Your task to perform on an android device: Open calendar and show me the first week of next month Image 0: 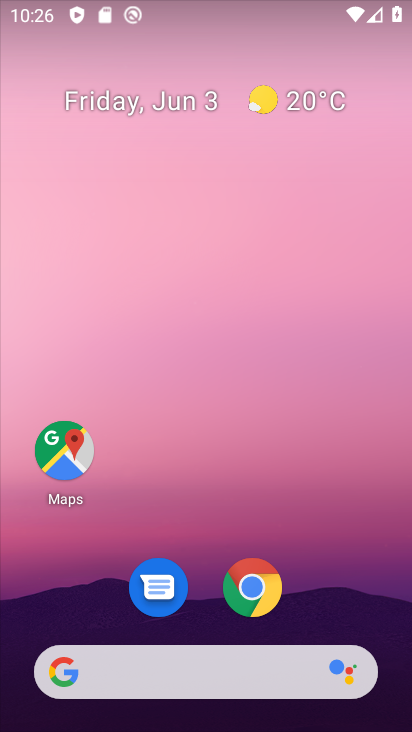
Step 0: press home button
Your task to perform on an android device: Open calendar and show me the first week of next month Image 1: 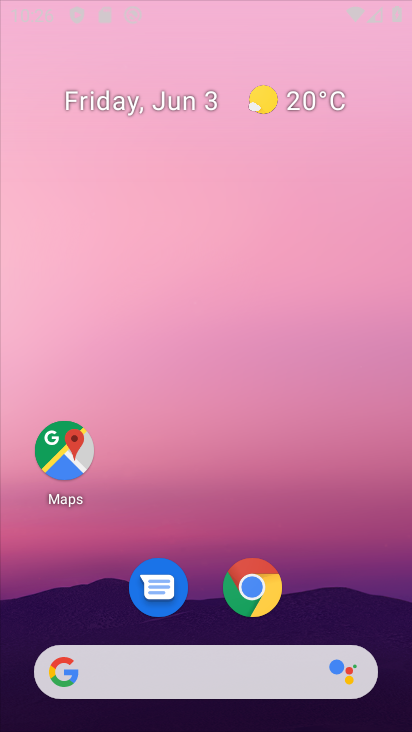
Step 1: drag from (318, 584) to (263, 80)
Your task to perform on an android device: Open calendar and show me the first week of next month Image 2: 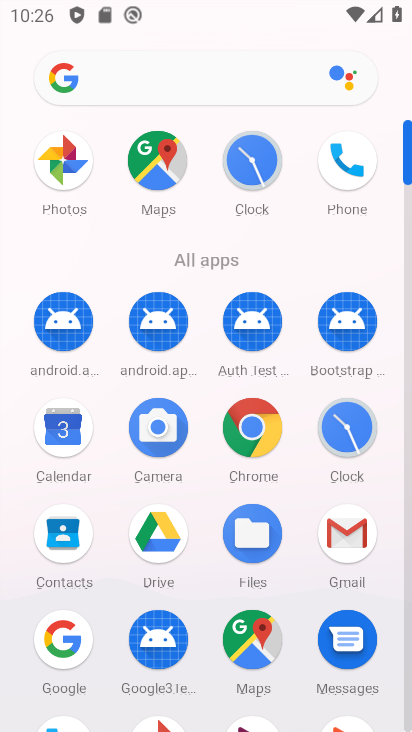
Step 2: click (59, 434)
Your task to perform on an android device: Open calendar and show me the first week of next month Image 3: 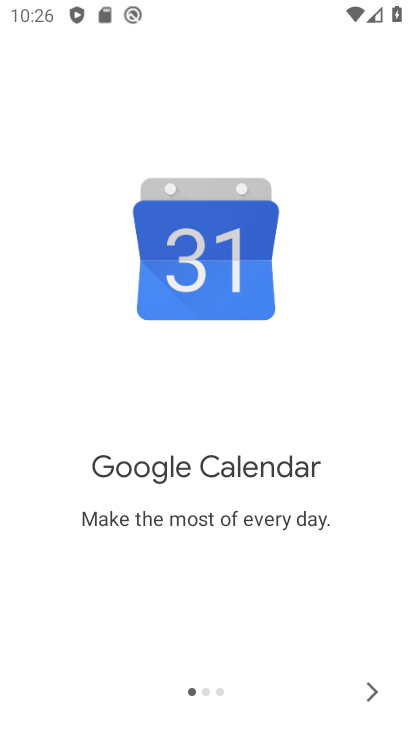
Step 3: click (372, 687)
Your task to perform on an android device: Open calendar and show me the first week of next month Image 4: 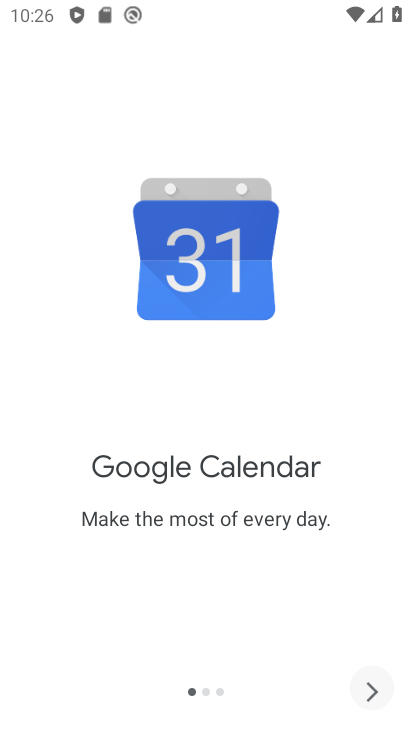
Step 4: click (372, 687)
Your task to perform on an android device: Open calendar and show me the first week of next month Image 5: 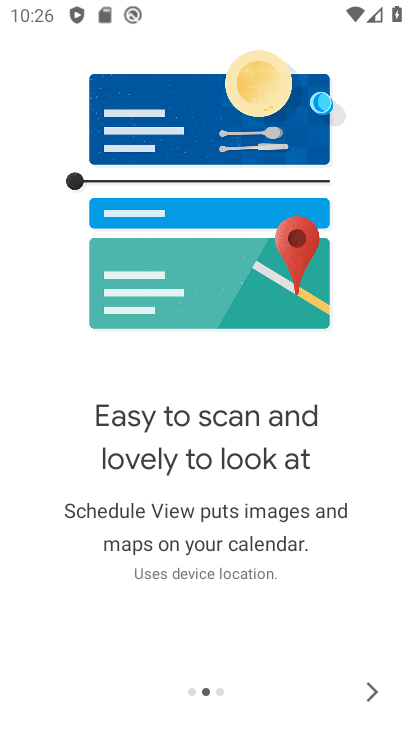
Step 5: click (371, 688)
Your task to perform on an android device: Open calendar and show me the first week of next month Image 6: 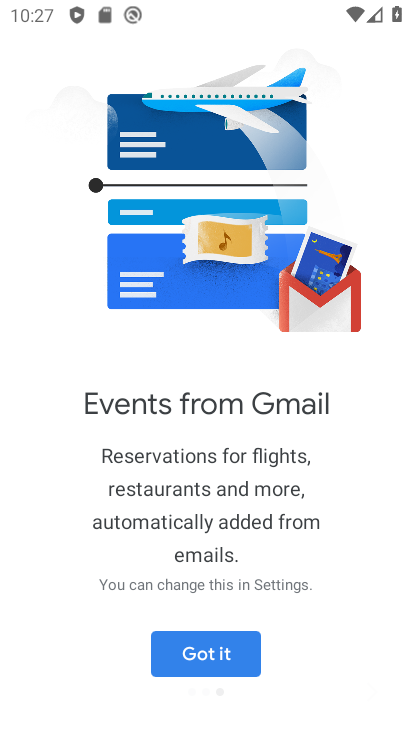
Step 6: click (212, 665)
Your task to perform on an android device: Open calendar and show me the first week of next month Image 7: 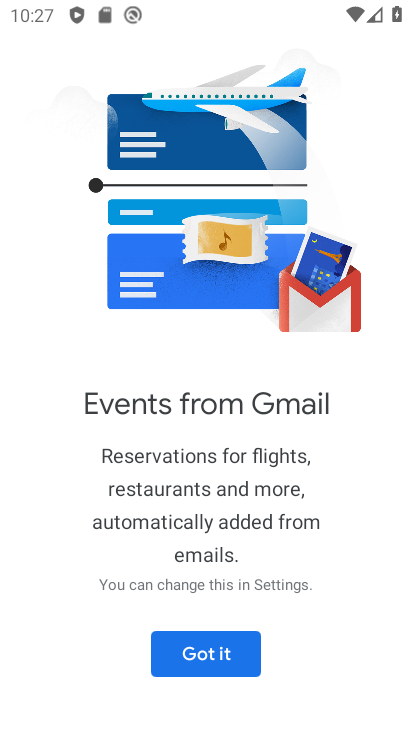
Step 7: click (215, 654)
Your task to perform on an android device: Open calendar and show me the first week of next month Image 8: 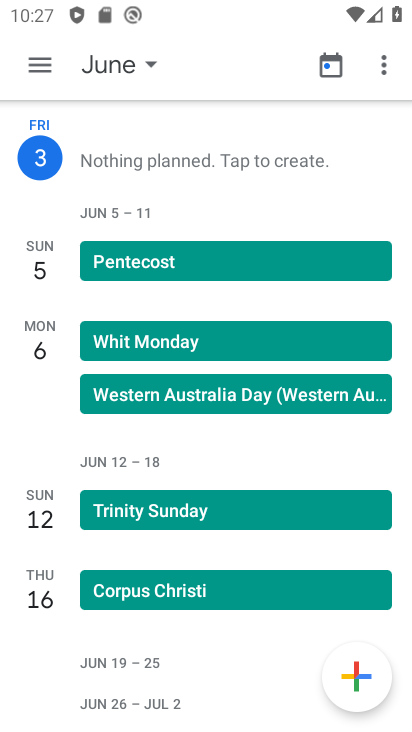
Step 8: click (33, 50)
Your task to perform on an android device: Open calendar and show me the first week of next month Image 9: 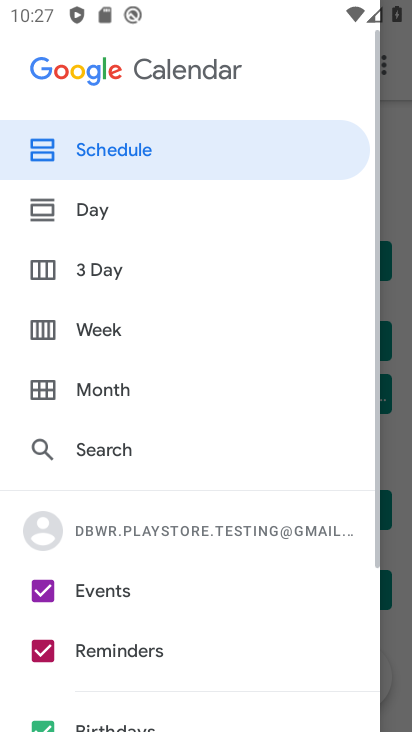
Step 9: click (130, 332)
Your task to perform on an android device: Open calendar and show me the first week of next month Image 10: 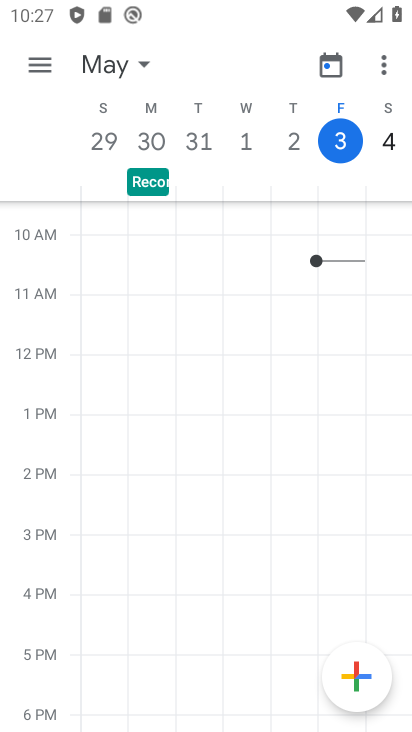
Step 10: click (140, 60)
Your task to perform on an android device: Open calendar and show me the first week of next month Image 11: 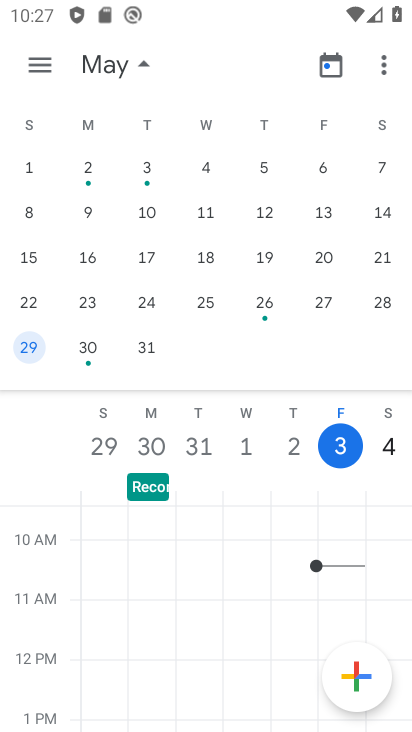
Step 11: drag from (357, 237) to (23, 335)
Your task to perform on an android device: Open calendar and show me the first week of next month Image 12: 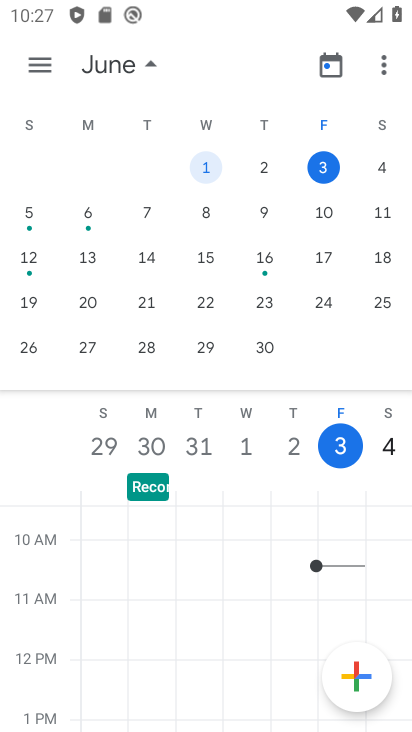
Step 12: drag from (199, 243) to (5, 214)
Your task to perform on an android device: Open calendar and show me the first week of next month Image 13: 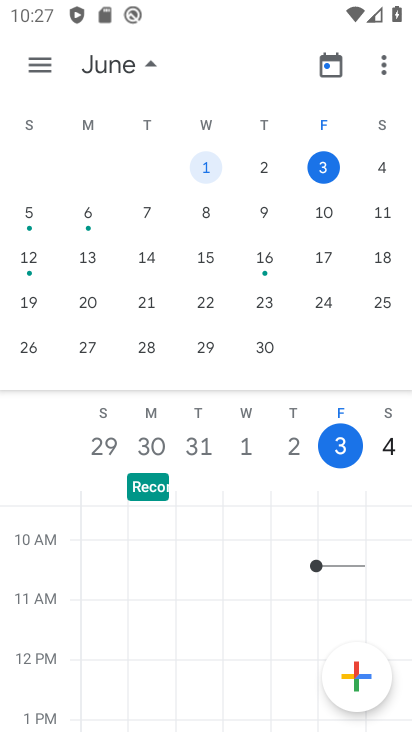
Step 13: drag from (349, 242) to (0, 202)
Your task to perform on an android device: Open calendar and show me the first week of next month Image 14: 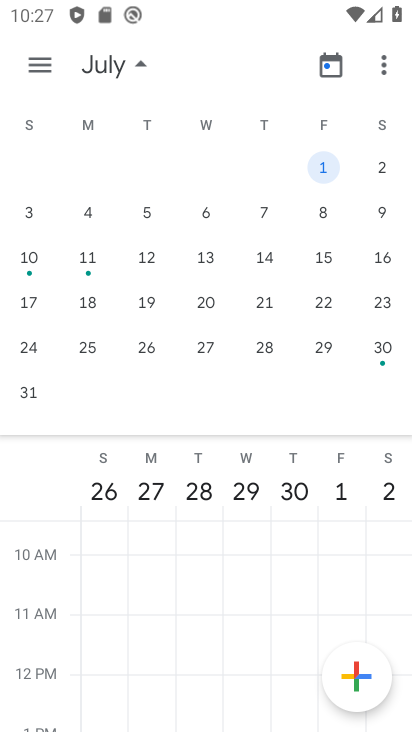
Step 14: click (331, 174)
Your task to perform on an android device: Open calendar and show me the first week of next month Image 15: 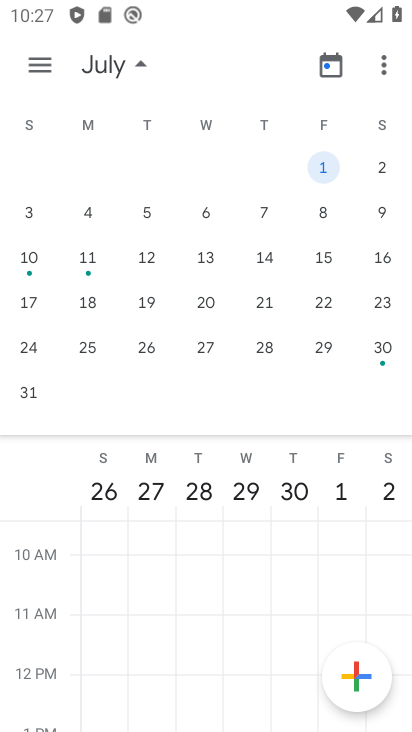
Step 15: task complete